Your task to perform on an android device: open app "Flipkart Online Shopping App" Image 0: 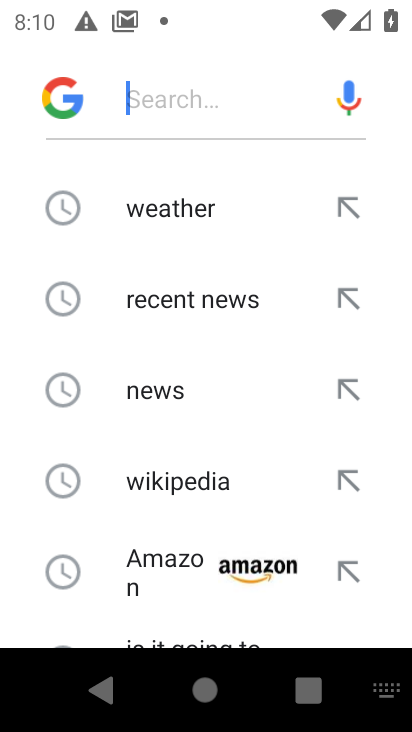
Step 0: press home button
Your task to perform on an android device: open app "Flipkart Online Shopping App" Image 1: 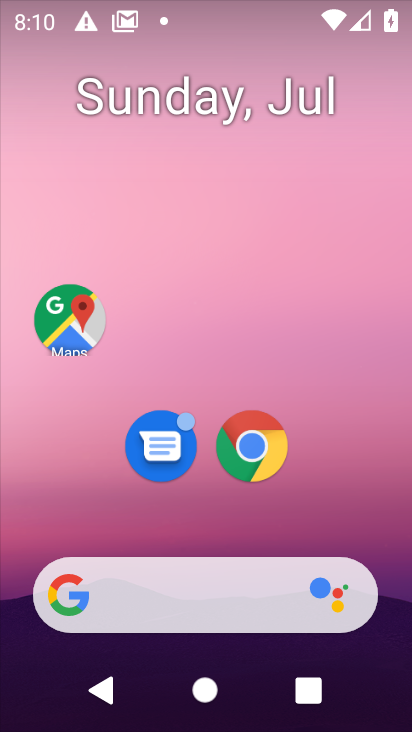
Step 1: drag from (216, 330) to (233, 121)
Your task to perform on an android device: open app "Flipkart Online Shopping App" Image 2: 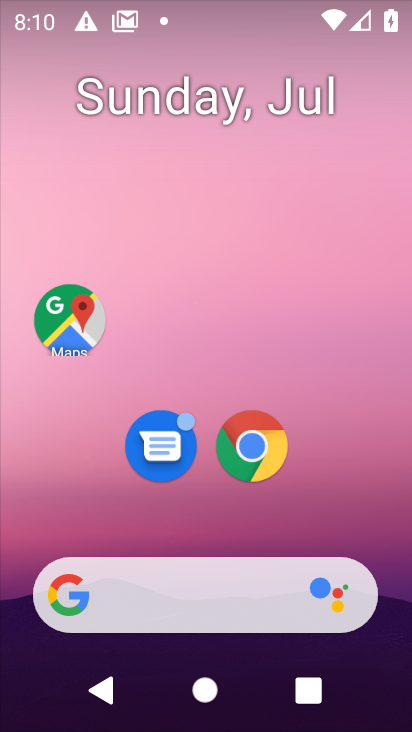
Step 2: drag from (221, 528) to (261, 152)
Your task to perform on an android device: open app "Flipkart Online Shopping App" Image 3: 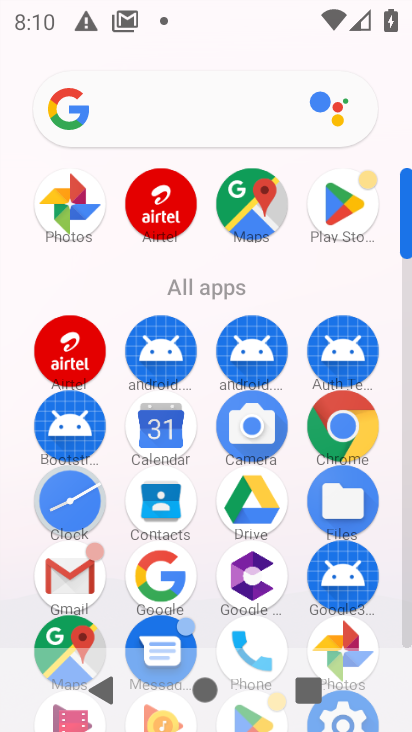
Step 3: click (352, 194)
Your task to perform on an android device: open app "Flipkart Online Shopping App" Image 4: 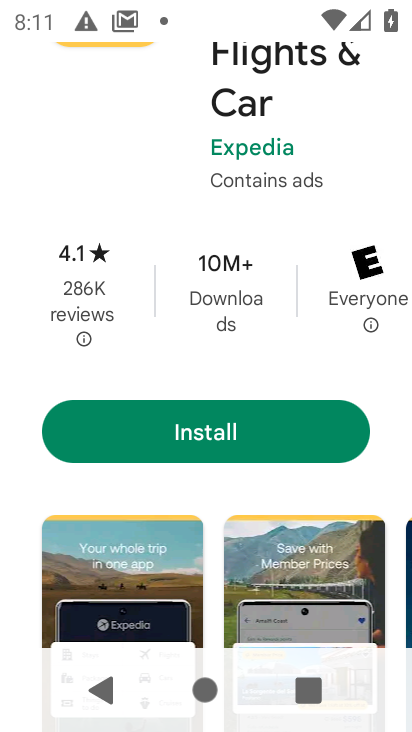
Step 4: press back button
Your task to perform on an android device: open app "Flipkart Online Shopping App" Image 5: 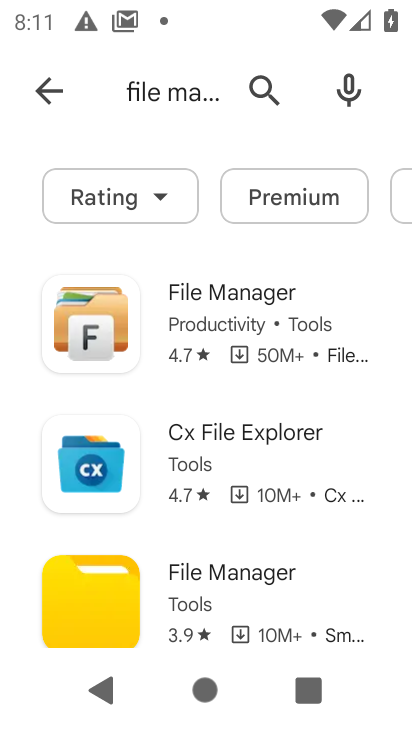
Step 5: click (259, 80)
Your task to perform on an android device: open app "Flipkart Online Shopping App" Image 6: 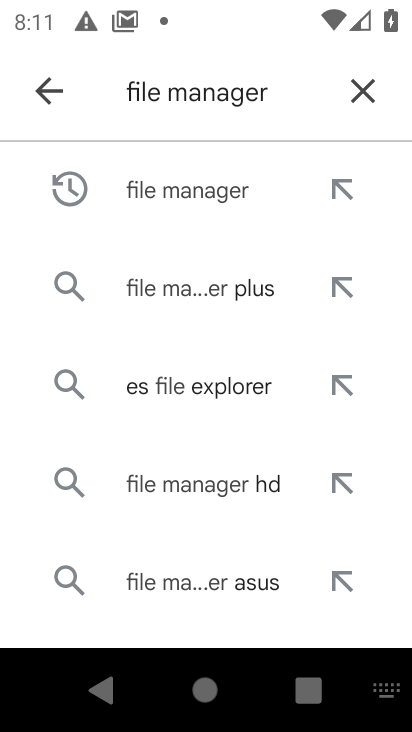
Step 6: click (351, 93)
Your task to perform on an android device: open app "Flipkart Online Shopping App" Image 7: 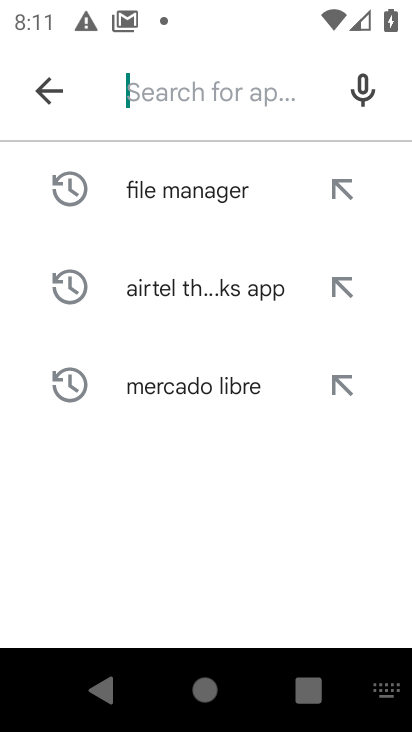
Step 7: type "Flipkart Online Shopping App"
Your task to perform on an android device: open app "Flipkart Online Shopping App" Image 8: 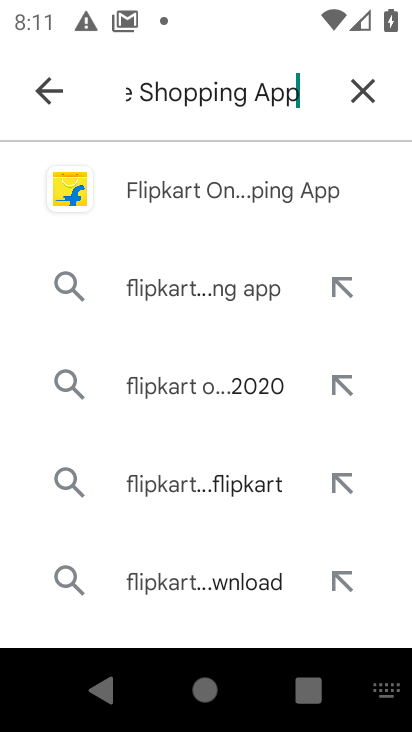
Step 8: click (318, 179)
Your task to perform on an android device: open app "Flipkart Online Shopping App" Image 9: 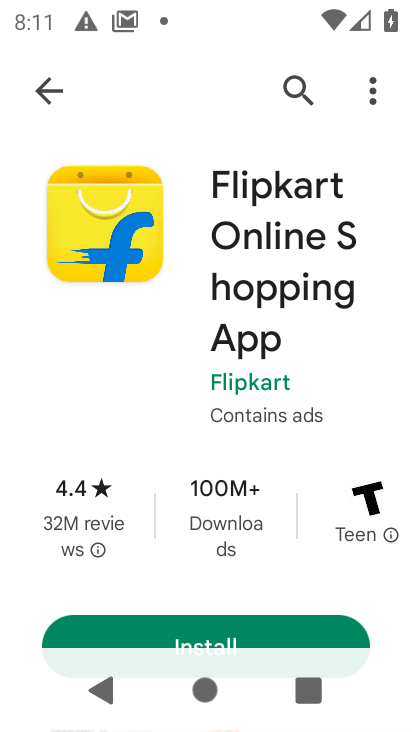
Step 9: task complete